Your task to perform on an android device: clear all cookies in the chrome app Image 0: 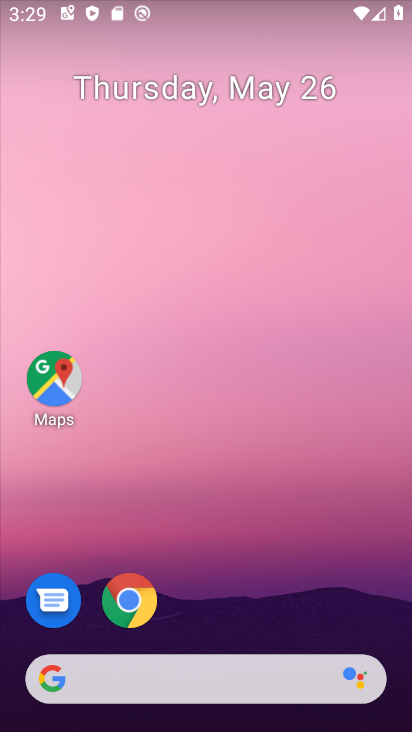
Step 0: drag from (258, 546) to (169, 51)
Your task to perform on an android device: clear all cookies in the chrome app Image 1: 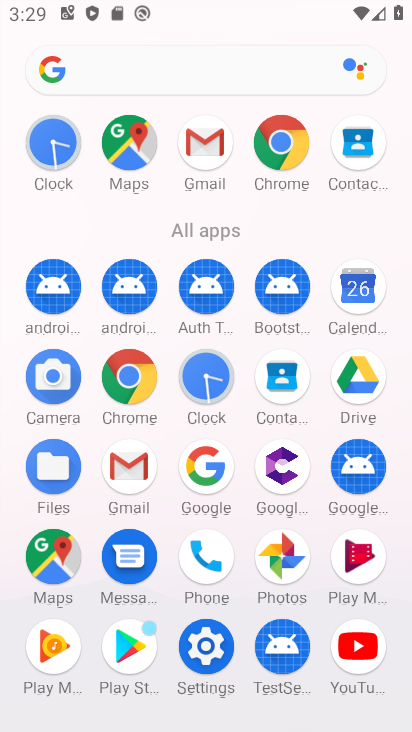
Step 1: drag from (6, 594) to (23, 255)
Your task to perform on an android device: clear all cookies in the chrome app Image 2: 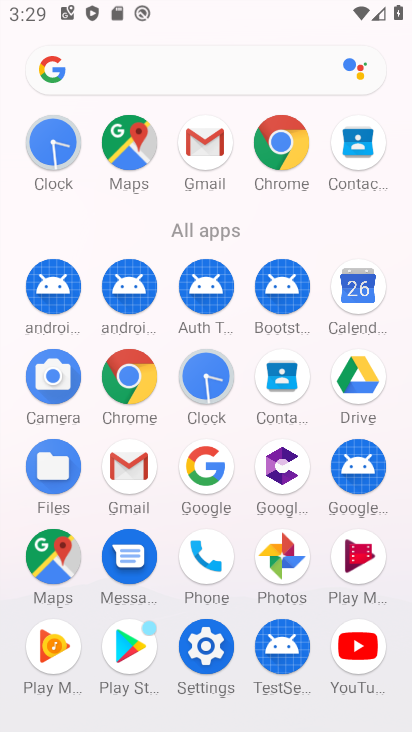
Step 2: click (121, 374)
Your task to perform on an android device: clear all cookies in the chrome app Image 3: 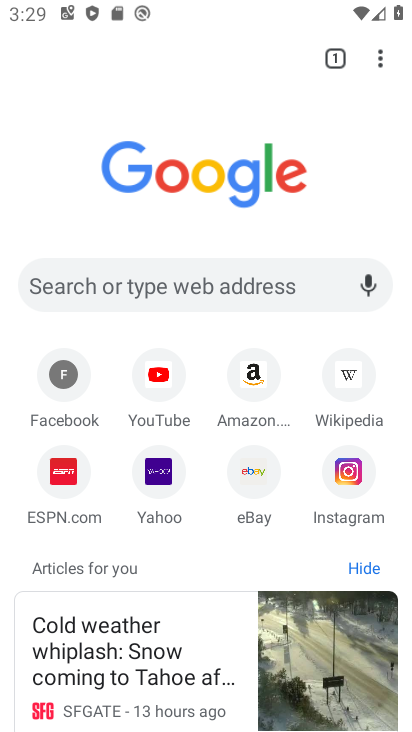
Step 3: drag from (382, 61) to (210, 544)
Your task to perform on an android device: clear all cookies in the chrome app Image 4: 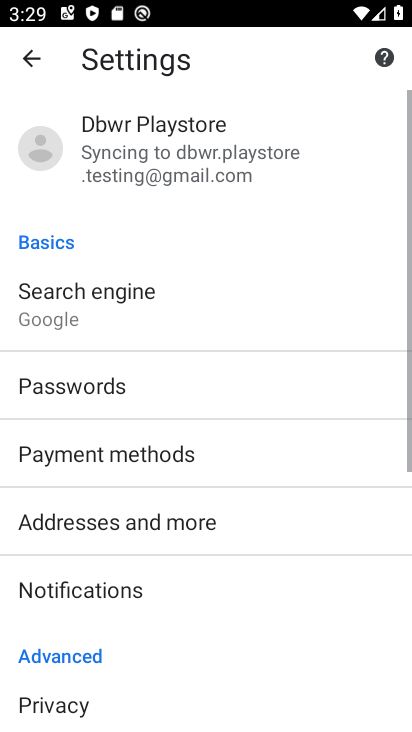
Step 4: click (91, 694)
Your task to perform on an android device: clear all cookies in the chrome app Image 5: 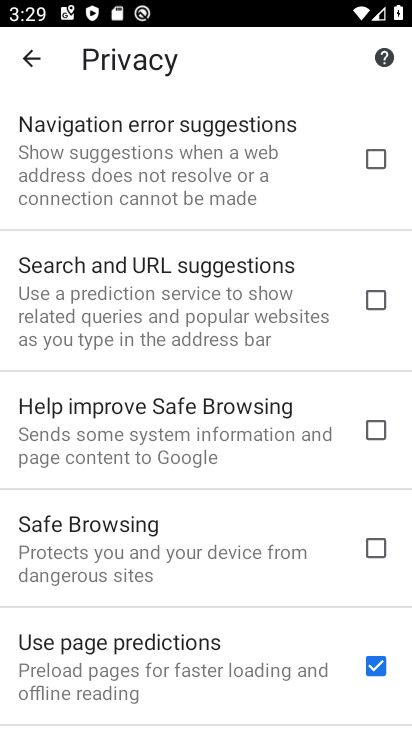
Step 5: drag from (215, 619) to (236, 140)
Your task to perform on an android device: clear all cookies in the chrome app Image 6: 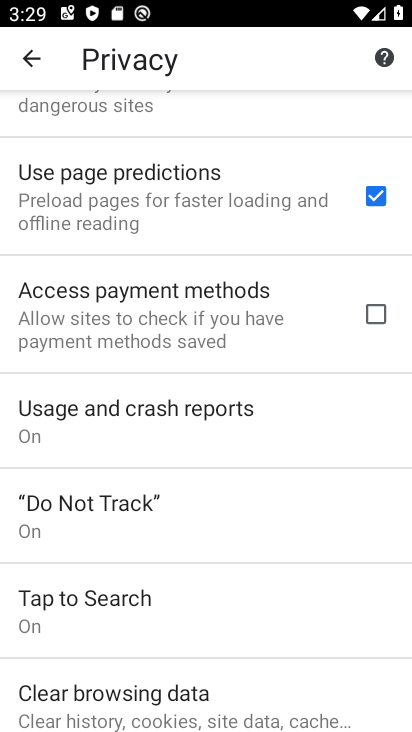
Step 6: drag from (236, 568) to (235, 210)
Your task to perform on an android device: clear all cookies in the chrome app Image 7: 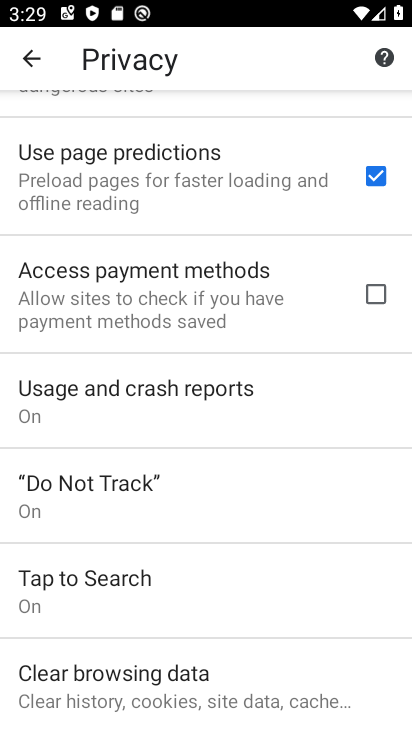
Step 7: click (234, 683)
Your task to perform on an android device: clear all cookies in the chrome app Image 8: 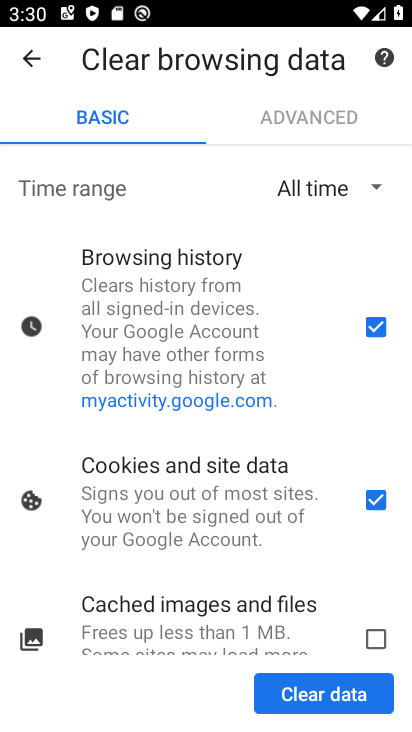
Step 8: click (376, 326)
Your task to perform on an android device: clear all cookies in the chrome app Image 9: 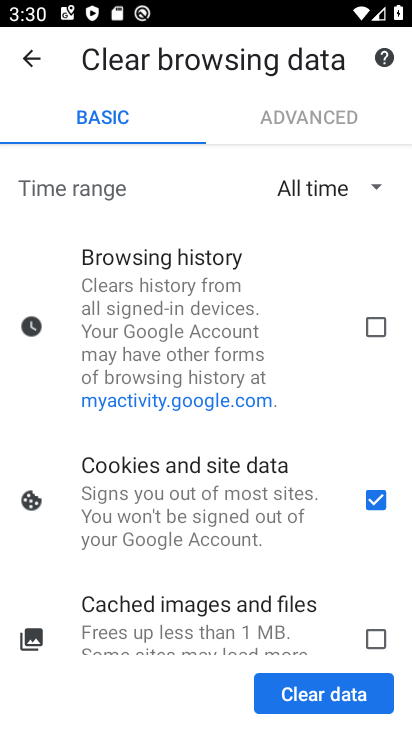
Step 9: click (326, 679)
Your task to perform on an android device: clear all cookies in the chrome app Image 10: 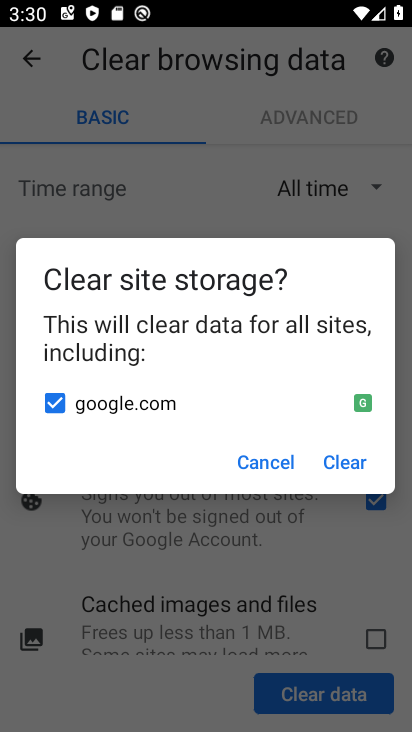
Step 10: click (323, 454)
Your task to perform on an android device: clear all cookies in the chrome app Image 11: 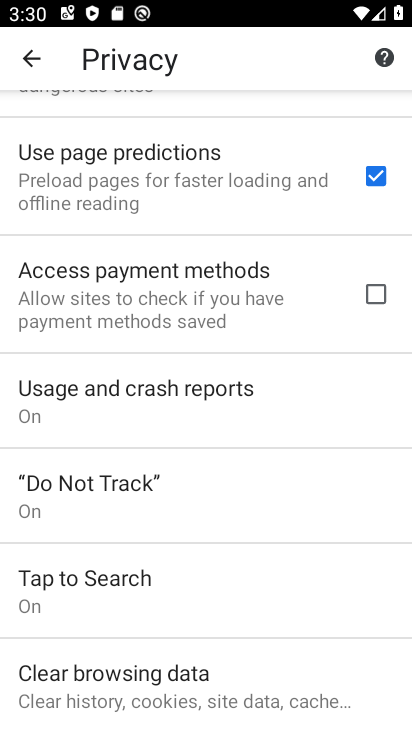
Step 11: task complete